Your task to perform on an android device: What's on my calendar tomorrow? Image 0: 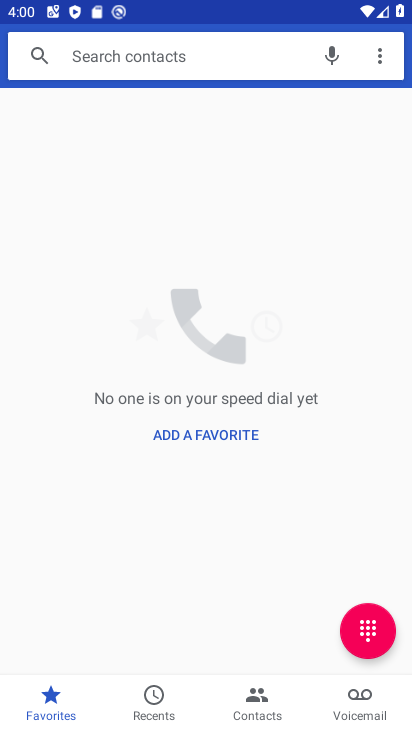
Step 0: press home button
Your task to perform on an android device: What's on my calendar tomorrow? Image 1: 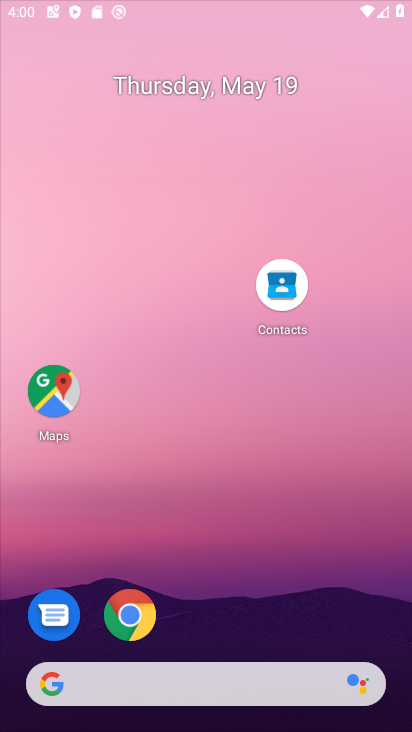
Step 1: drag from (210, 649) to (249, 96)
Your task to perform on an android device: What's on my calendar tomorrow? Image 2: 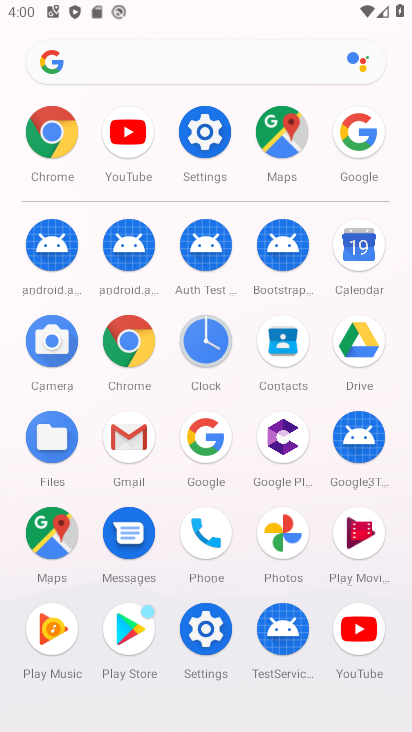
Step 2: click (350, 266)
Your task to perform on an android device: What's on my calendar tomorrow? Image 3: 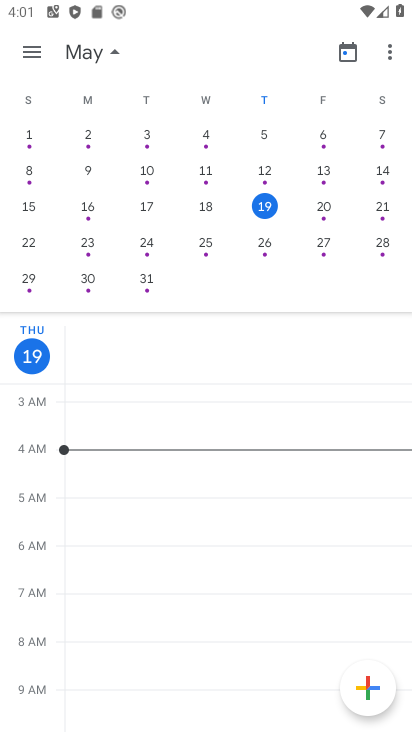
Step 3: click (333, 216)
Your task to perform on an android device: What's on my calendar tomorrow? Image 4: 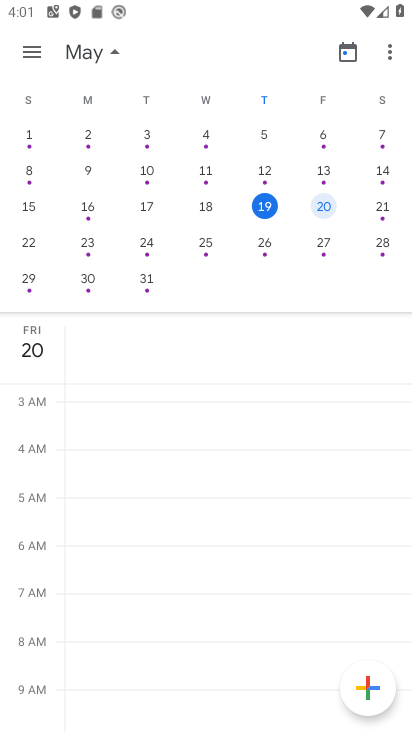
Step 4: task complete